Your task to perform on an android device: Open notification settings Image 0: 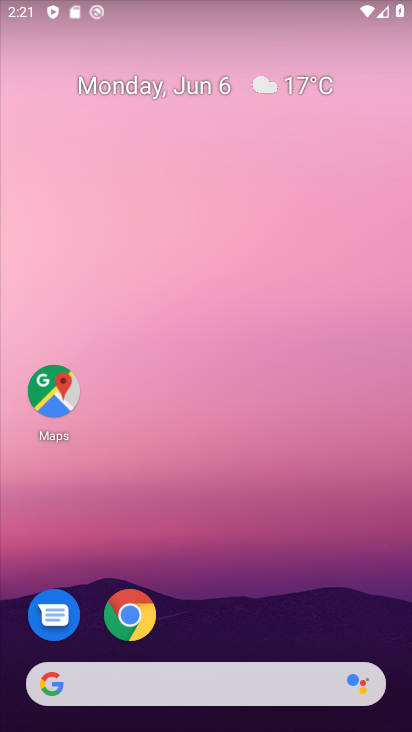
Step 0: drag from (187, 645) to (265, 191)
Your task to perform on an android device: Open notification settings Image 1: 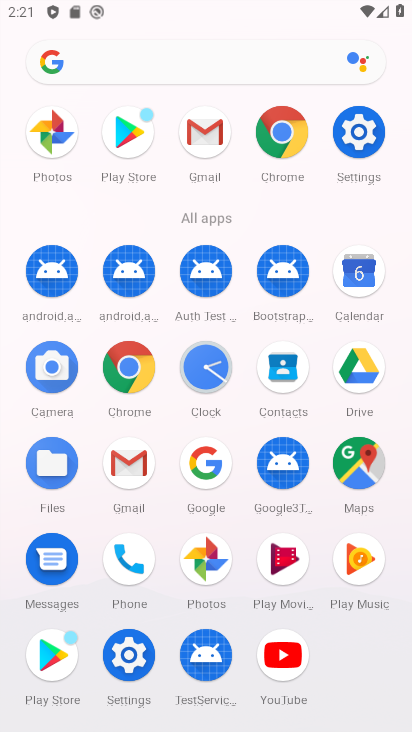
Step 1: click (363, 143)
Your task to perform on an android device: Open notification settings Image 2: 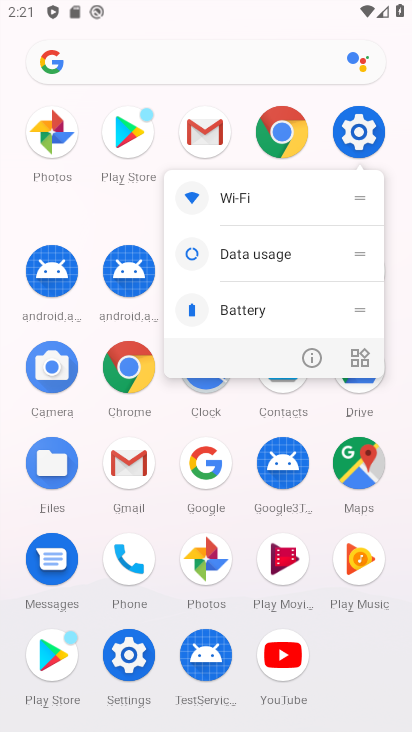
Step 2: click (363, 125)
Your task to perform on an android device: Open notification settings Image 3: 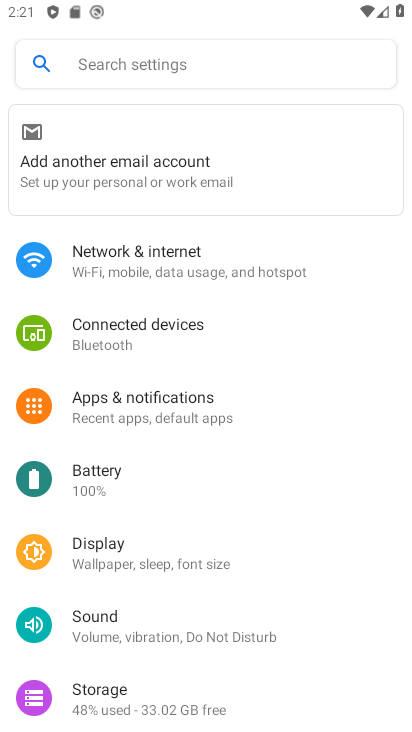
Step 3: click (194, 395)
Your task to perform on an android device: Open notification settings Image 4: 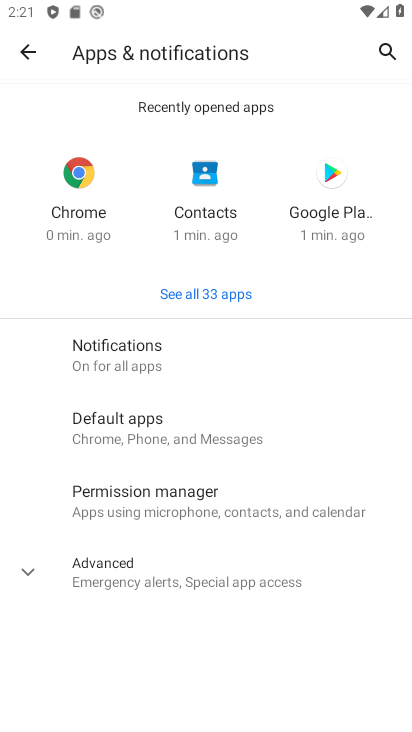
Step 4: click (152, 339)
Your task to perform on an android device: Open notification settings Image 5: 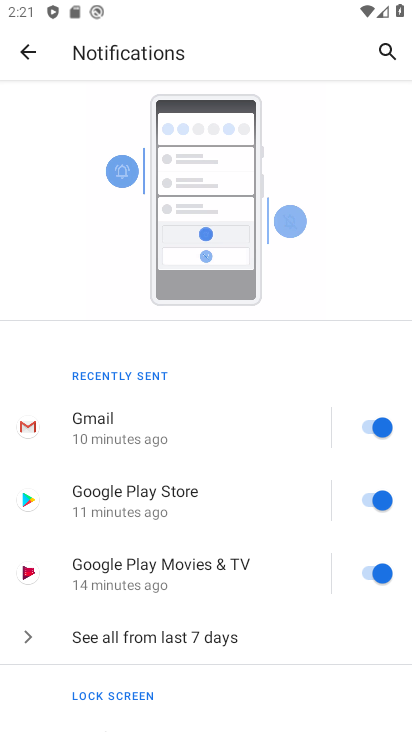
Step 5: task complete